Your task to perform on an android device: Open internet settings Image 0: 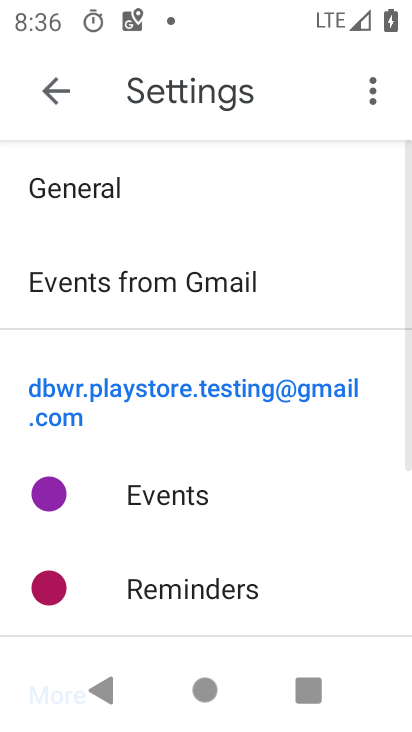
Step 0: drag from (207, 504) to (221, 80)
Your task to perform on an android device: Open internet settings Image 1: 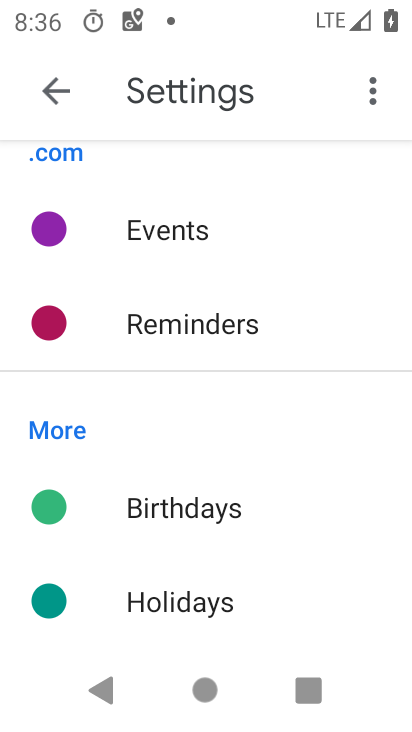
Step 1: drag from (201, 214) to (310, 681)
Your task to perform on an android device: Open internet settings Image 2: 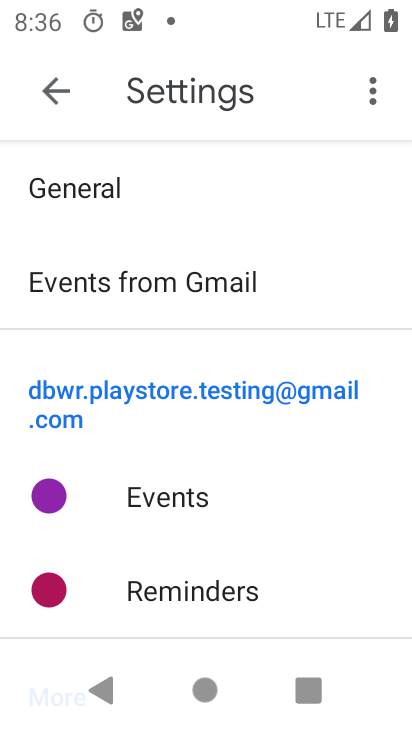
Step 2: drag from (235, 205) to (248, 535)
Your task to perform on an android device: Open internet settings Image 3: 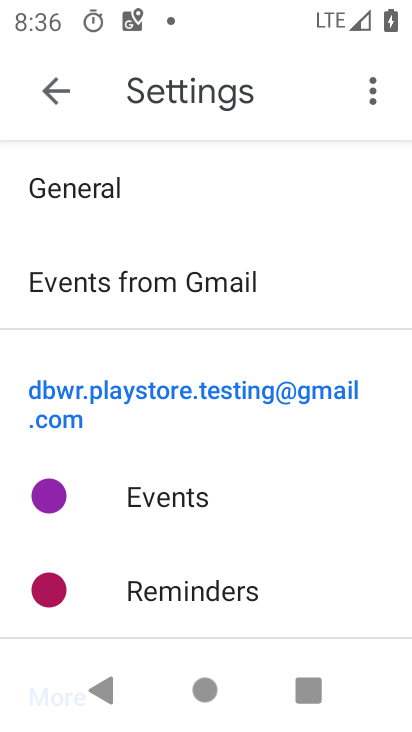
Step 3: click (58, 103)
Your task to perform on an android device: Open internet settings Image 4: 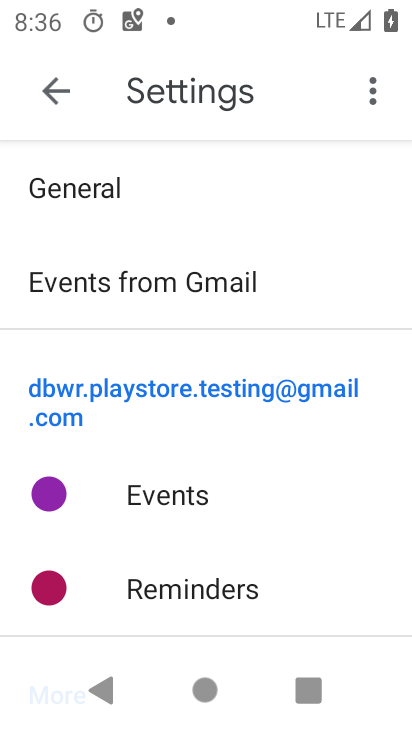
Step 4: drag from (210, 251) to (281, 552)
Your task to perform on an android device: Open internet settings Image 5: 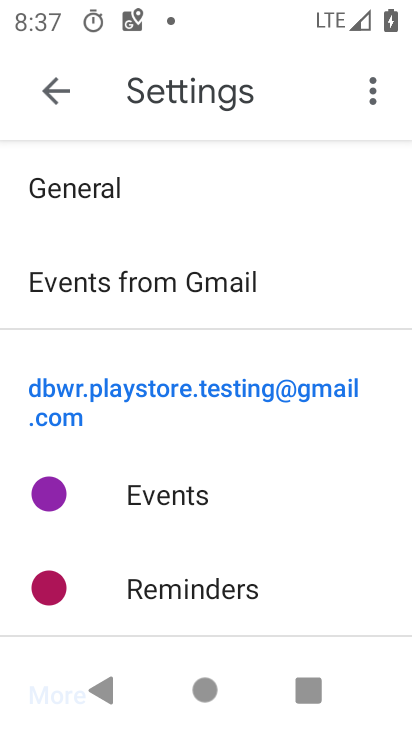
Step 5: press home button
Your task to perform on an android device: Open internet settings Image 6: 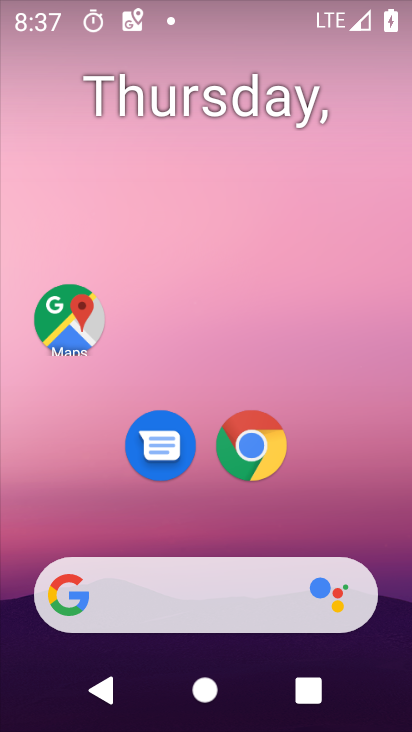
Step 6: drag from (191, 474) to (197, 315)
Your task to perform on an android device: Open internet settings Image 7: 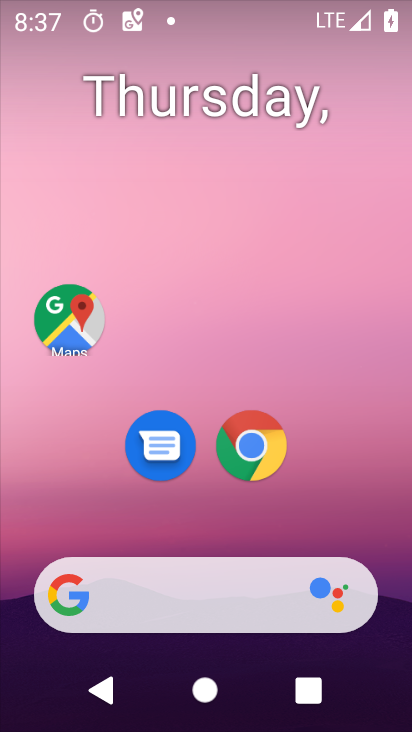
Step 7: drag from (231, 531) to (211, 193)
Your task to perform on an android device: Open internet settings Image 8: 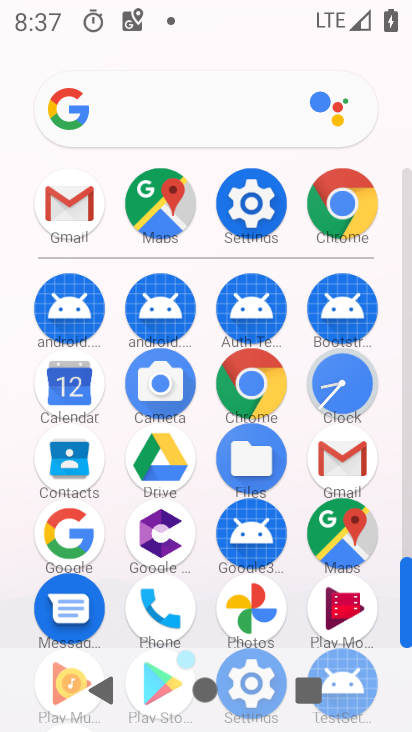
Step 8: click (253, 213)
Your task to perform on an android device: Open internet settings Image 9: 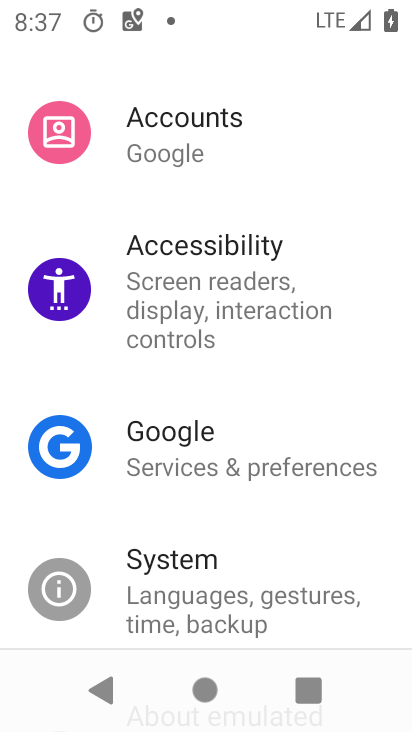
Step 9: drag from (210, 169) to (256, 560)
Your task to perform on an android device: Open internet settings Image 10: 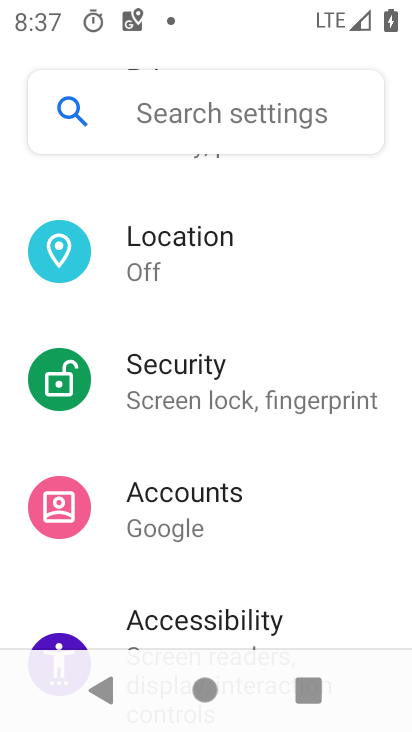
Step 10: drag from (221, 188) to (282, 628)
Your task to perform on an android device: Open internet settings Image 11: 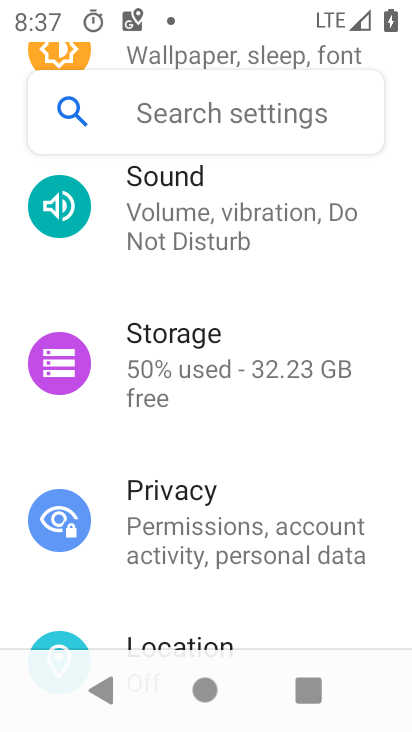
Step 11: drag from (265, 212) to (302, 669)
Your task to perform on an android device: Open internet settings Image 12: 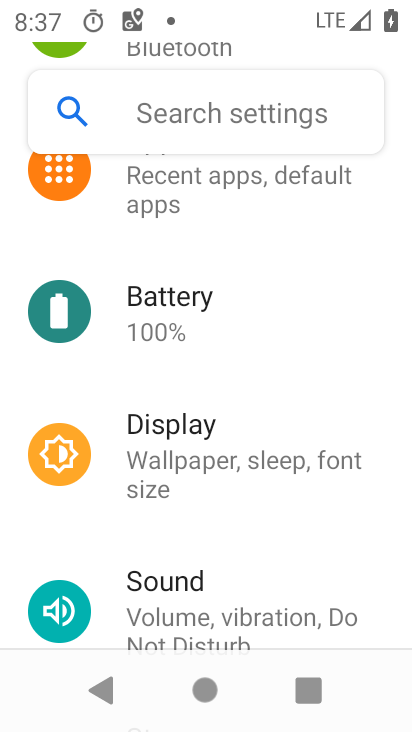
Step 12: drag from (251, 233) to (303, 731)
Your task to perform on an android device: Open internet settings Image 13: 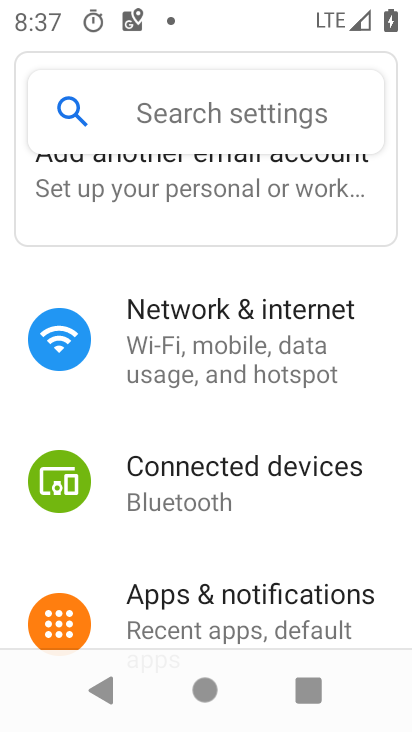
Step 13: click (212, 332)
Your task to perform on an android device: Open internet settings Image 14: 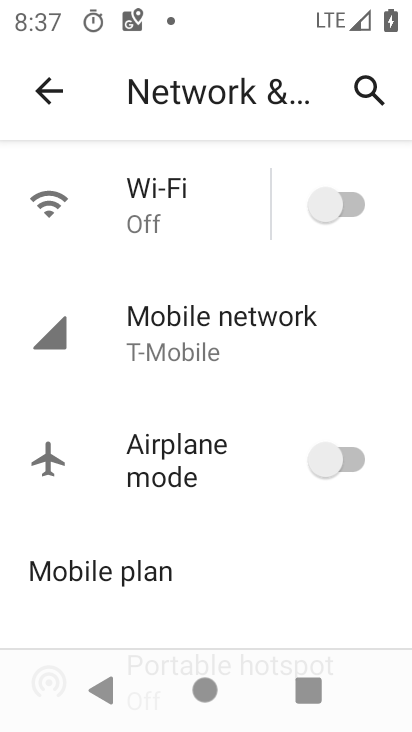
Step 14: task complete